Your task to perform on an android device: make emails show in primary in the gmail app Image 0: 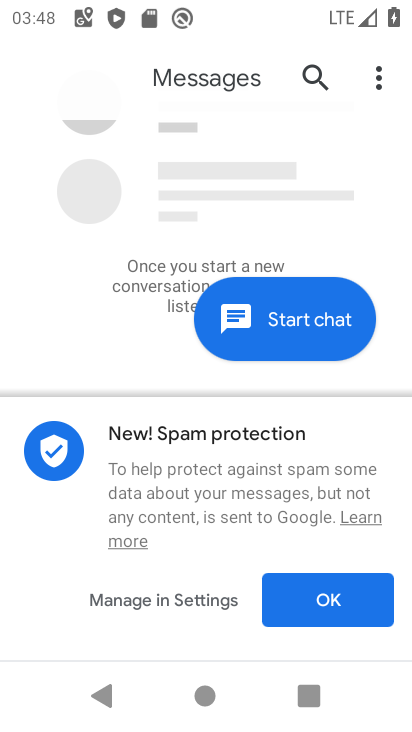
Step 0: press home button
Your task to perform on an android device: make emails show in primary in the gmail app Image 1: 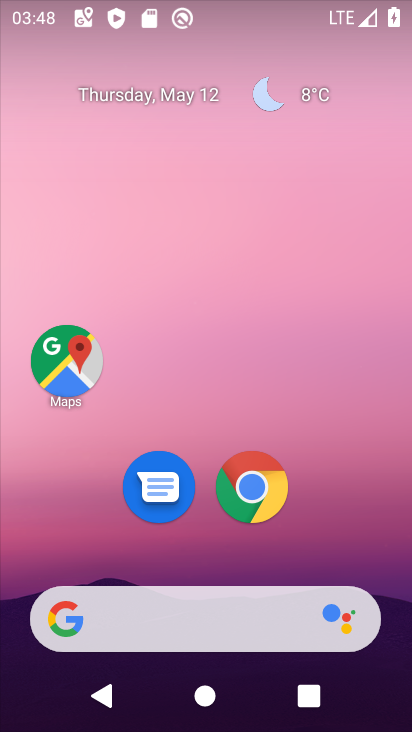
Step 1: drag from (331, 534) to (343, 9)
Your task to perform on an android device: make emails show in primary in the gmail app Image 2: 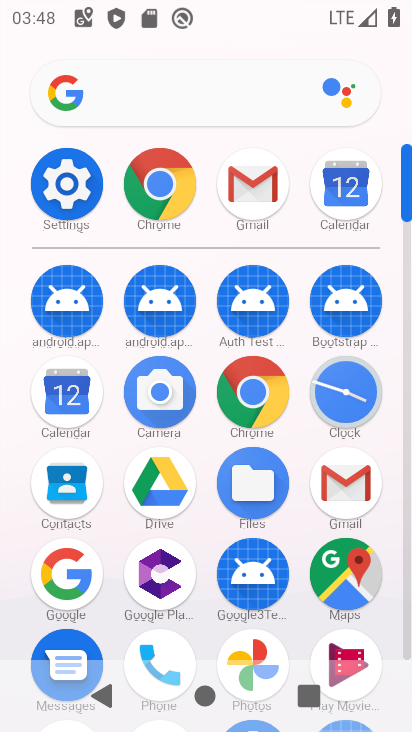
Step 2: click (258, 193)
Your task to perform on an android device: make emails show in primary in the gmail app Image 3: 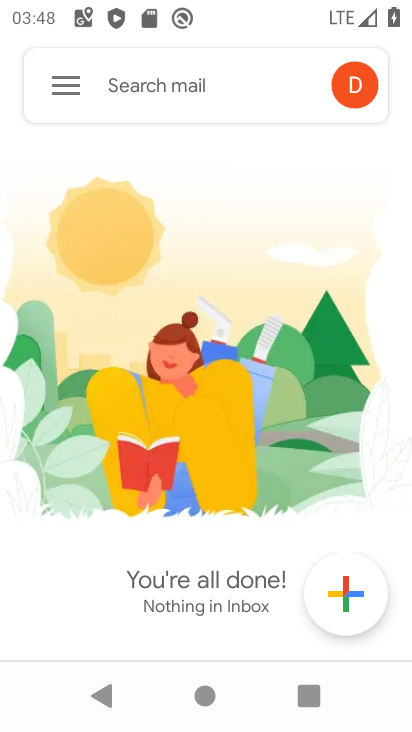
Step 3: click (68, 76)
Your task to perform on an android device: make emails show in primary in the gmail app Image 4: 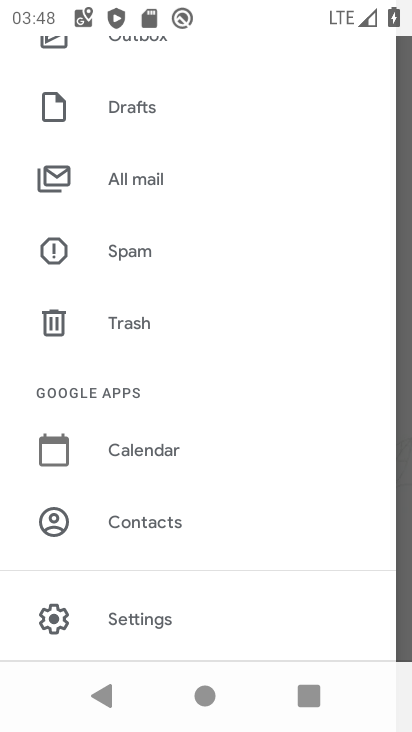
Step 4: click (164, 613)
Your task to perform on an android device: make emails show in primary in the gmail app Image 5: 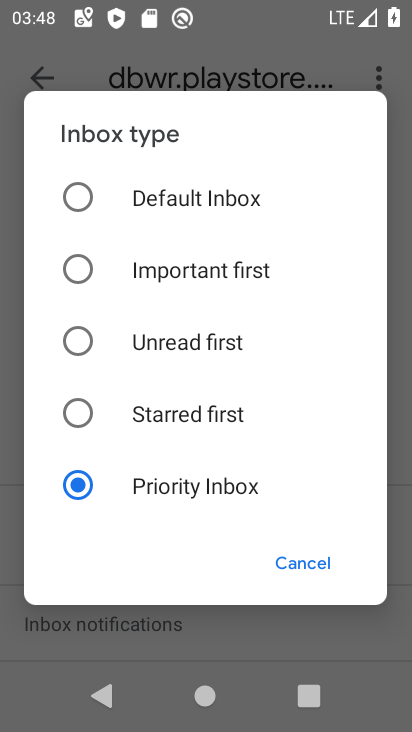
Step 5: click (171, 197)
Your task to perform on an android device: make emails show in primary in the gmail app Image 6: 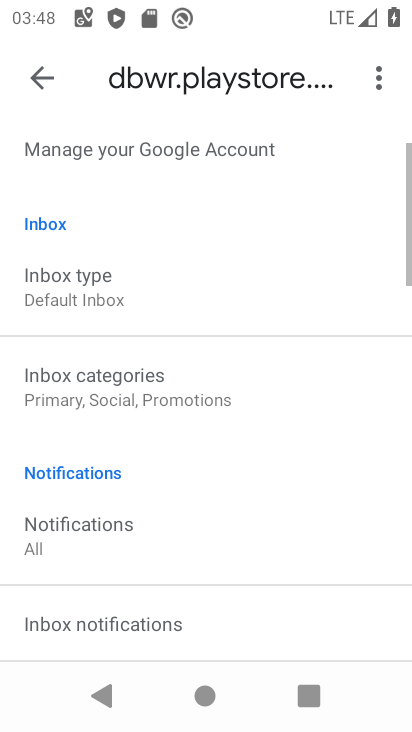
Step 6: click (103, 394)
Your task to perform on an android device: make emails show in primary in the gmail app Image 7: 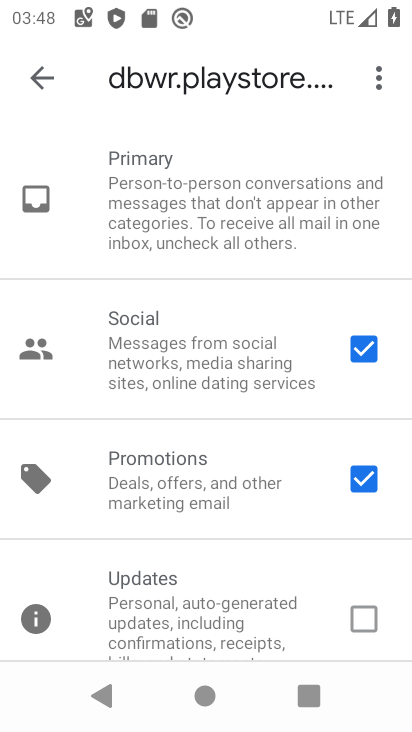
Step 7: task complete